Your task to perform on an android device: Clear the cart on ebay.com. Search for razer deathadder on ebay.com, select the first entry, add it to the cart, then select checkout. Image 0: 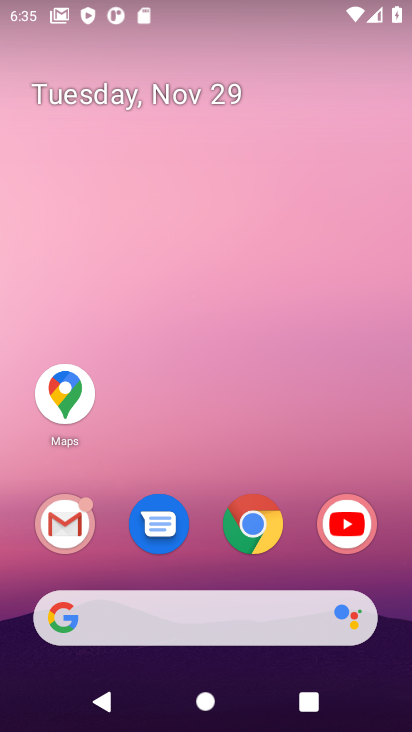
Step 0: click (254, 536)
Your task to perform on an android device: Clear the cart on ebay.com. Search for razer deathadder on ebay.com, select the first entry, add it to the cart, then select checkout. Image 1: 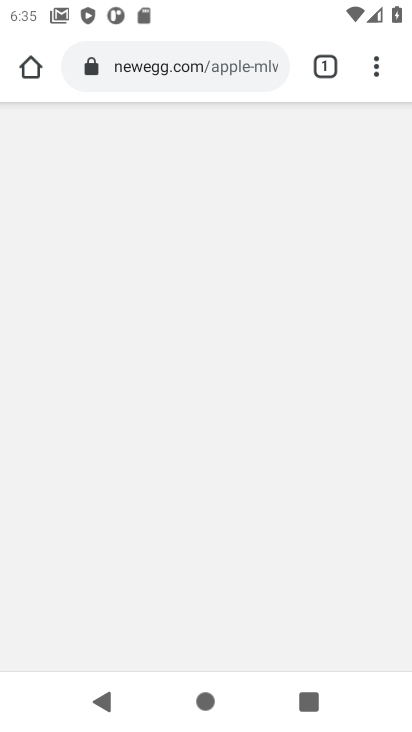
Step 1: click (184, 67)
Your task to perform on an android device: Clear the cart on ebay.com. Search for razer deathadder on ebay.com, select the first entry, add it to the cart, then select checkout. Image 2: 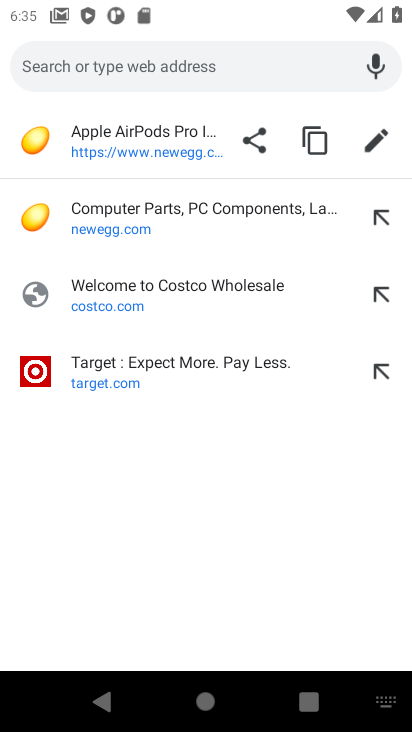
Step 2: type "ebay.com"
Your task to perform on an android device: Clear the cart on ebay.com. Search for razer deathadder on ebay.com, select the first entry, add it to the cart, then select checkout. Image 3: 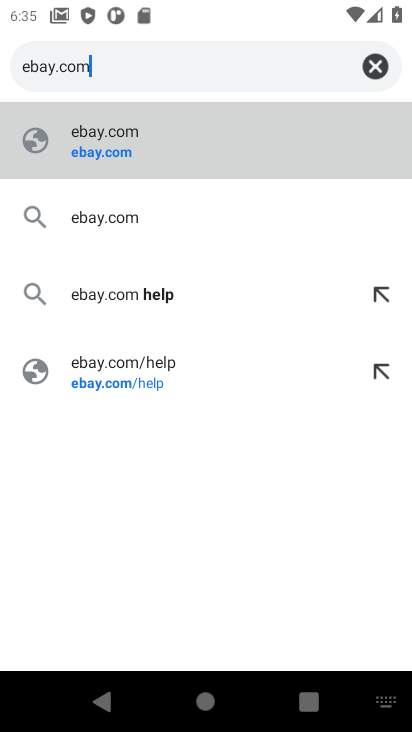
Step 3: click (96, 157)
Your task to perform on an android device: Clear the cart on ebay.com. Search for razer deathadder on ebay.com, select the first entry, add it to the cart, then select checkout. Image 4: 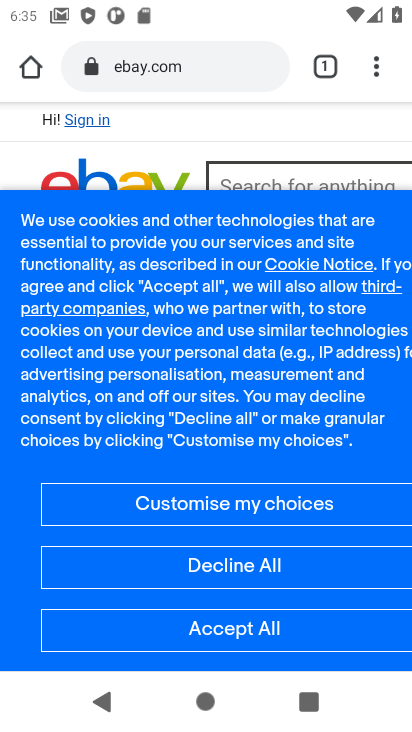
Step 4: drag from (280, 122) to (29, 132)
Your task to perform on an android device: Clear the cart on ebay.com. Search for razer deathadder on ebay.com, select the first entry, add it to the cart, then select checkout. Image 5: 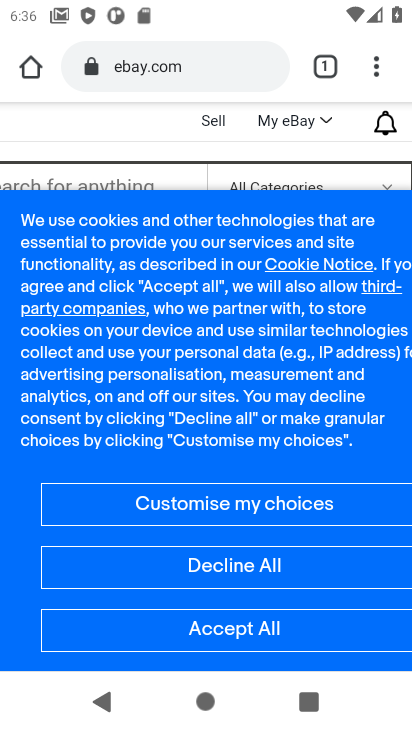
Step 5: drag from (274, 141) to (1, 134)
Your task to perform on an android device: Clear the cart on ebay.com. Search for razer deathadder on ebay.com, select the first entry, add it to the cart, then select checkout. Image 6: 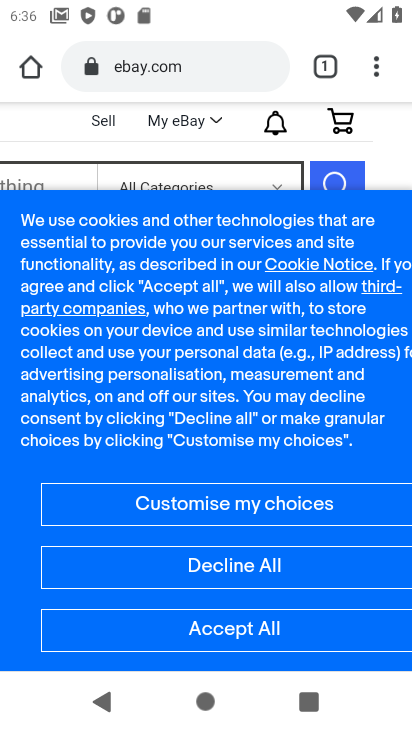
Step 6: click (340, 120)
Your task to perform on an android device: Clear the cart on ebay.com. Search for razer deathadder on ebay.com, select the first entry, add it to the cart, then select checkout. Image 7: 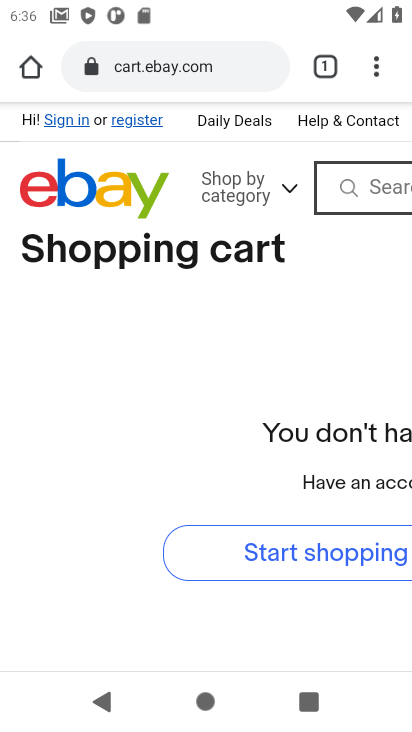
Step 7: click (360, 185)
Your task to perform on an android device: Clear the cart on ebay.com. Search for razer deathadder on ebay.com, select the first entry, add it to the cart, then select checkout. Image 8: 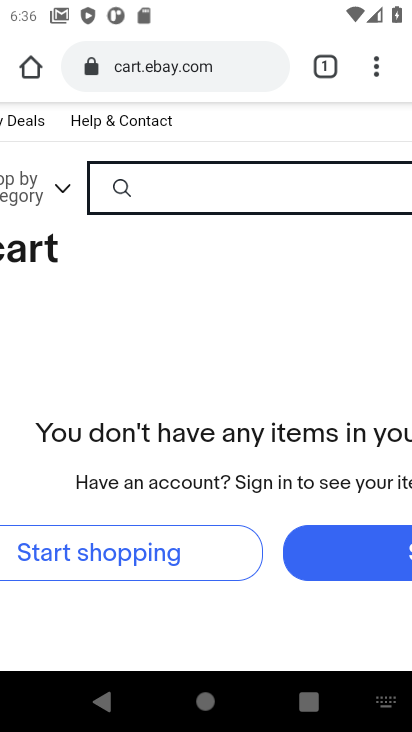
Step 8: type "razer deathadder"
Your task to perform on an android device: Clear the cart on ebay.com. Search for razer deathadder on ebay.com, select the first entry, add it to the cart, then select checkout. Image 9: 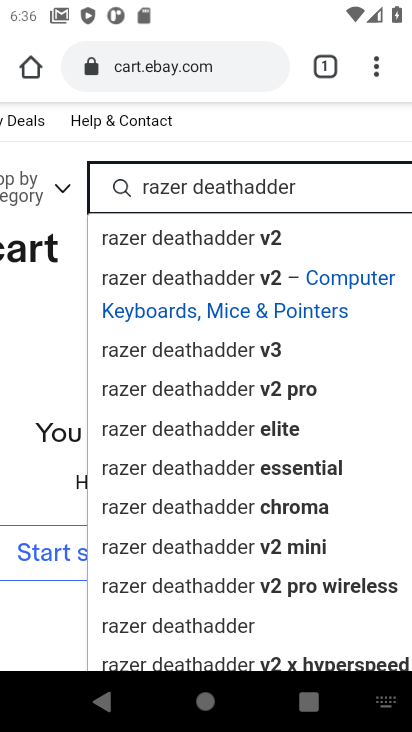
Step 9: click (179, 617)
Your task to perform on an android device: Clear the cart on ebay.com. Search for razer deathadder on ebay.com, select the first entry, add it to the cart, then select checkout. Image 10: 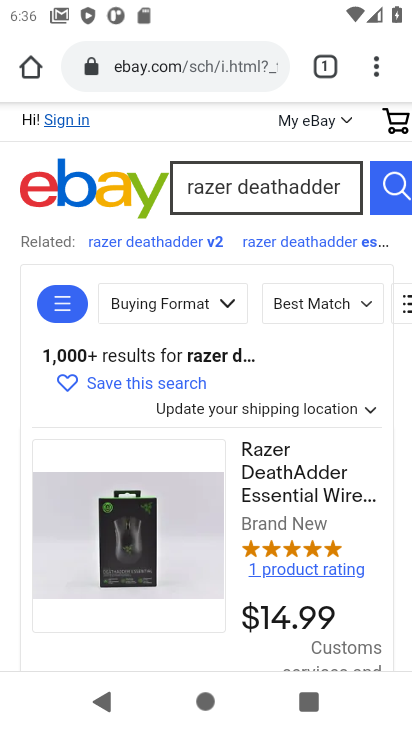
Step 10: drag from (189, 432) to (195, 316)
Your task to perform on an android device: Clear the cart on ebay.com. Search for razer deathadder on ebay.com, select the first entry, add it to the cart, then select checkout. Image 11: 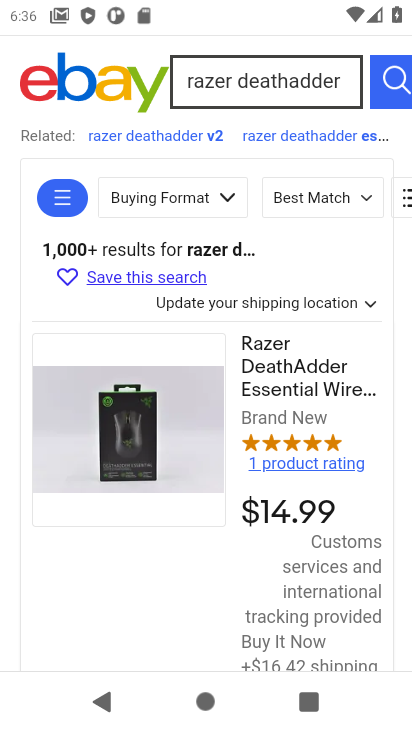
Step 11: drag from (179, 534) to (187, 347)
Your task to perform on an android device: Clear the cart on ebay.com. Search for razer deathadder on ebay.com, select the first entry, add it to the cart, then select checkout. Image 12: 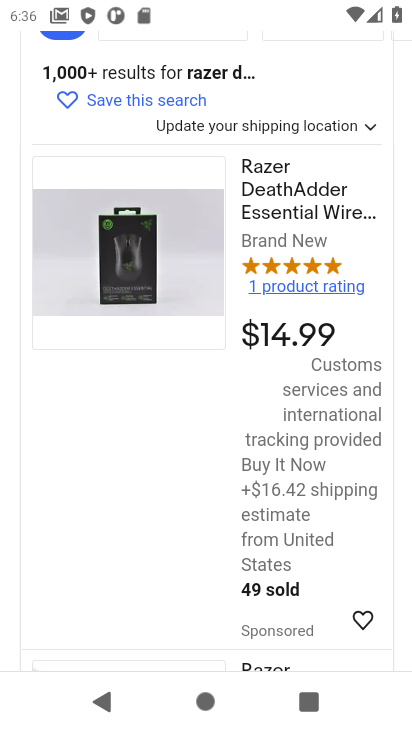
Step 12: click (139, 270)
Your task to perform on an android device: Clear the cart on ebay.com. Search for razer deathadder on ebay.com, select the first entry, add it to the cart, then select checkout. Image 13: 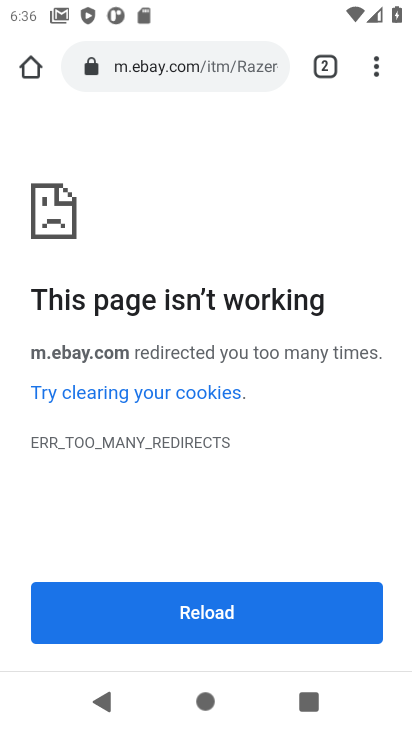
Step 13: task complete